Your task to perform on an android device: Open my contact list Image 0: 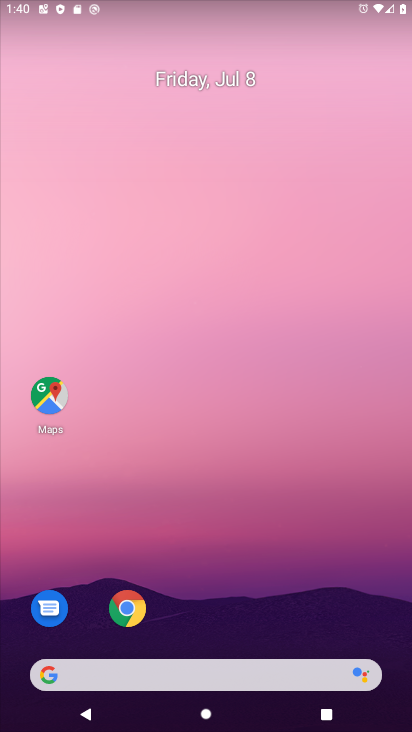
Step 0: drag from (196, 641) to (233, 0)
Your task to perform on an android device: Open my contact list Image 1: 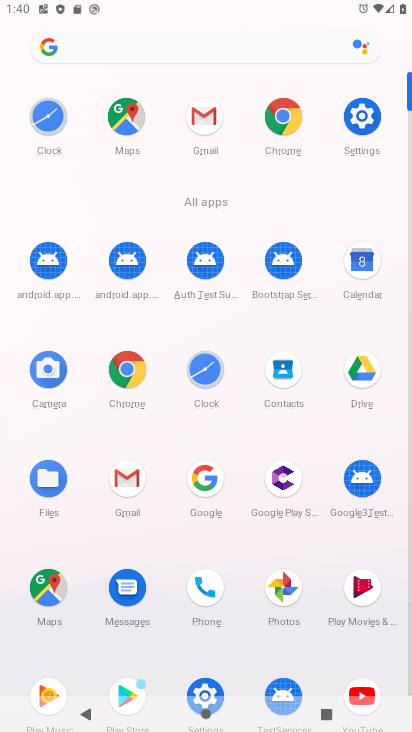
Step 1: click (281, 374)
Your task to perform on an android device: Open my contact list Image 2: 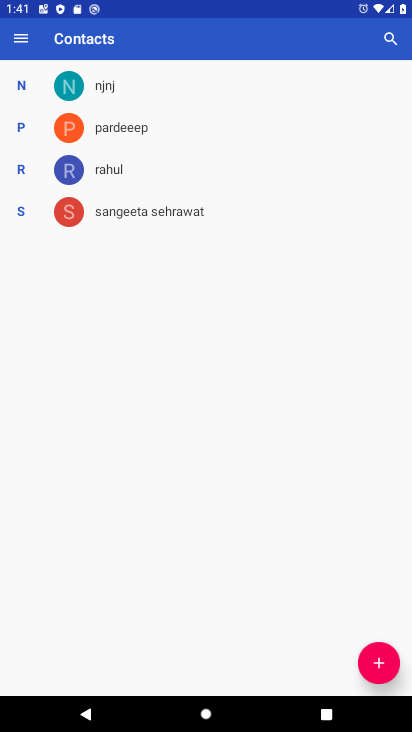
Step 2: task complete